Your task to perform on an android device: Go to Yahoo.com Image 0: 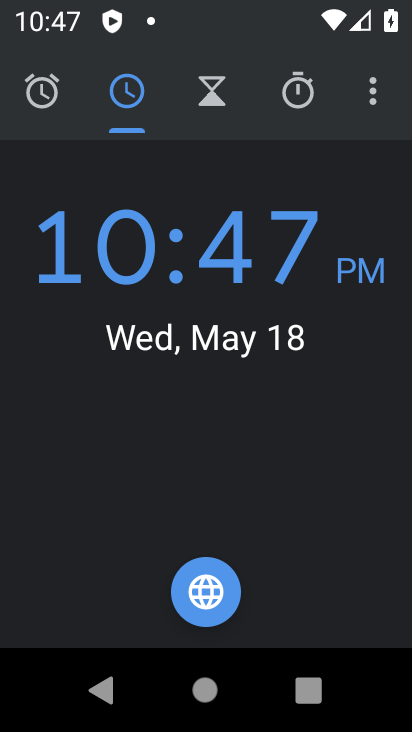
Step 0: press home button
Your task to perform on an android device: Go to Yahoo.com Image 1: 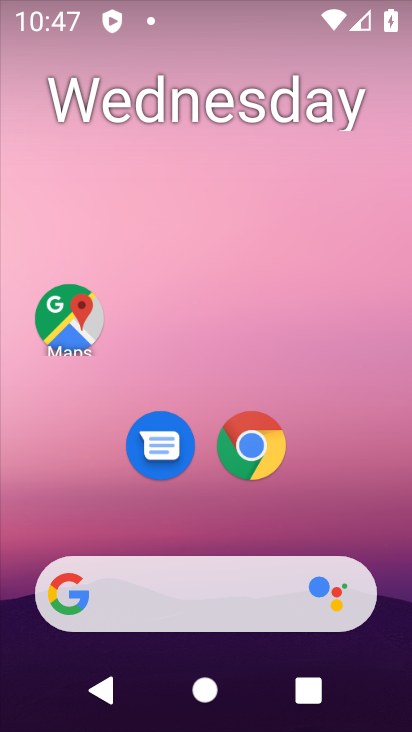
Step 1: click (265, 458)
Your task to perform on an android device: Go to Yahoo.com Image 2: 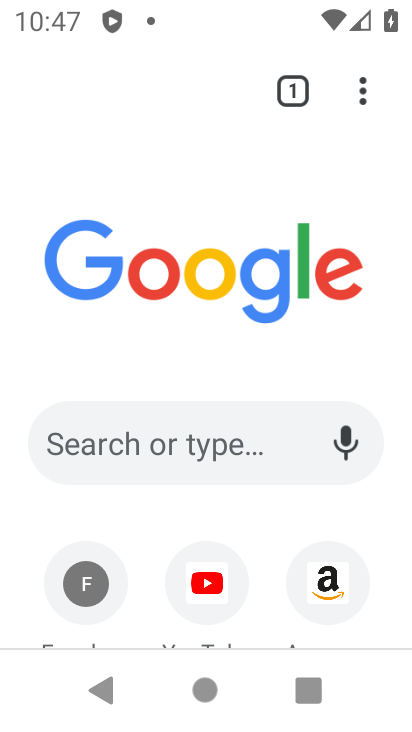
Step 2: drag from (257, 610) to (254, 379)
Your task to perform on an android device: Go to Yahoo.com Image 3: 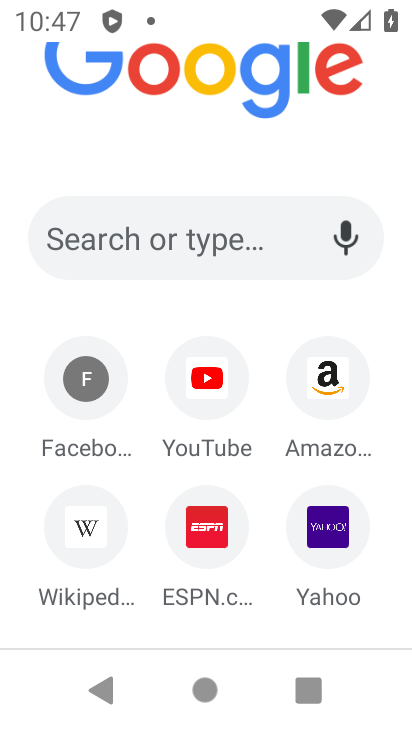
Step 3: click (308, 510)
Your task to perform on an android device: Go to Yahoo.com Image 4: 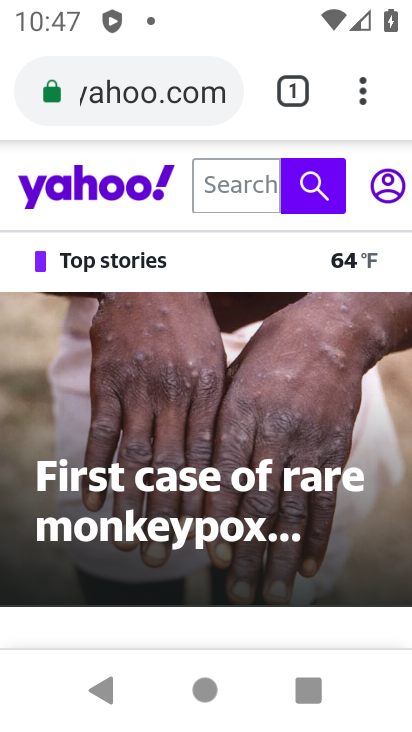
Step 4: task complete